Your task to perform on an android device: Toggle the flashlight Image 0: 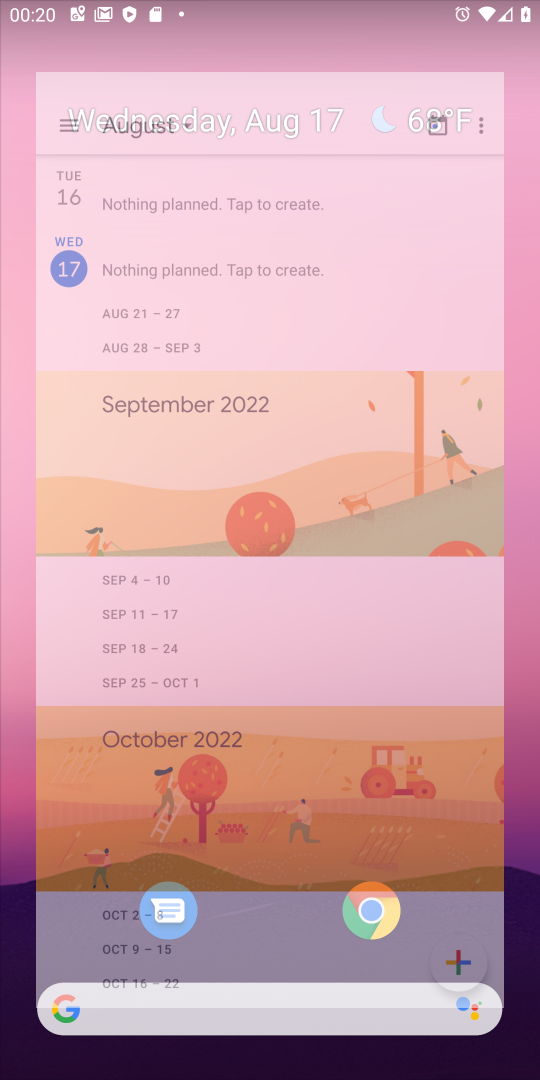
Step 0: press home button
Your task to perform on an android device: Toggle the flashlight Image 1: 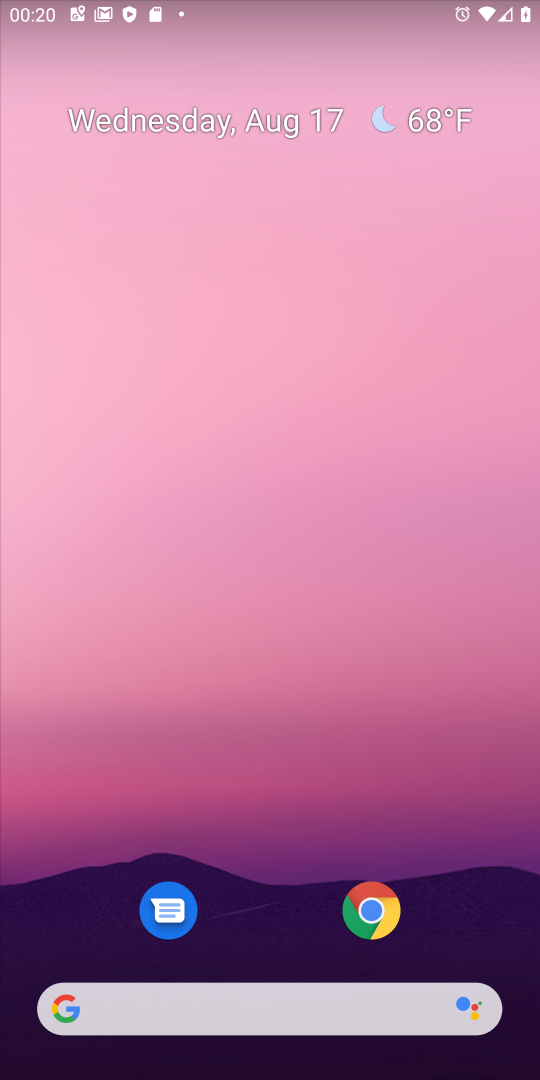
Step 1: drag from (291, 879) to (340, 128)
Your task to perform on an android device: Toggle the flashlight Image 2: 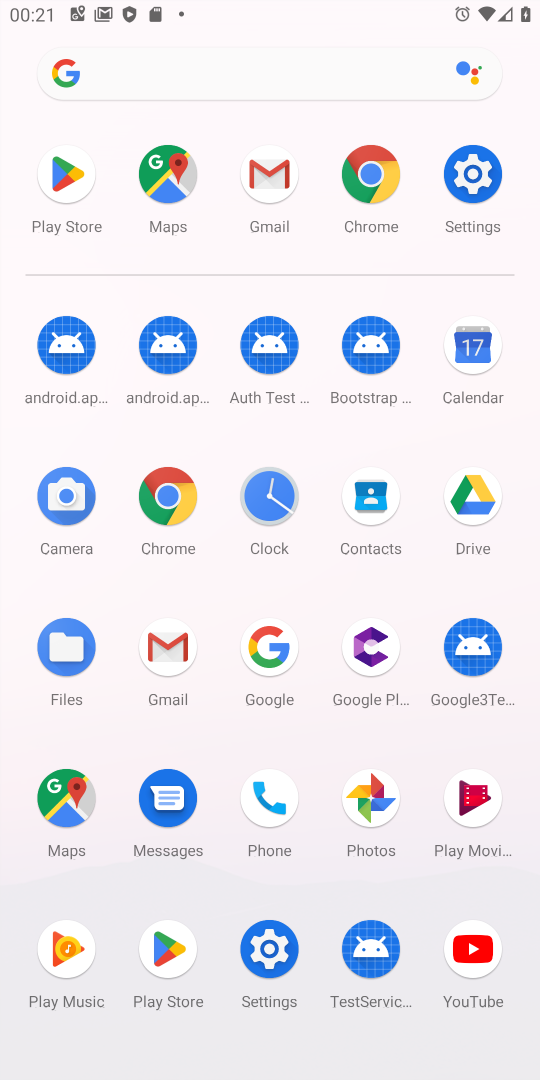
Step 2: click (265, 942)
Your task to perform on an android device: Toggle the flashlight Image 3: 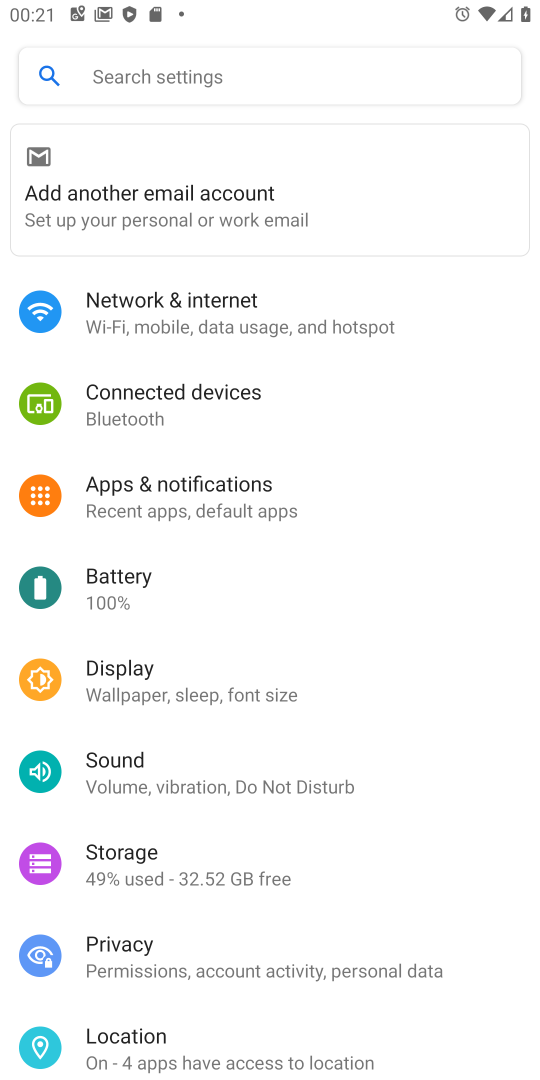
Step 3: click (231, 690)
Your task to perform on an android device: Toggle the flashlight Image 4: 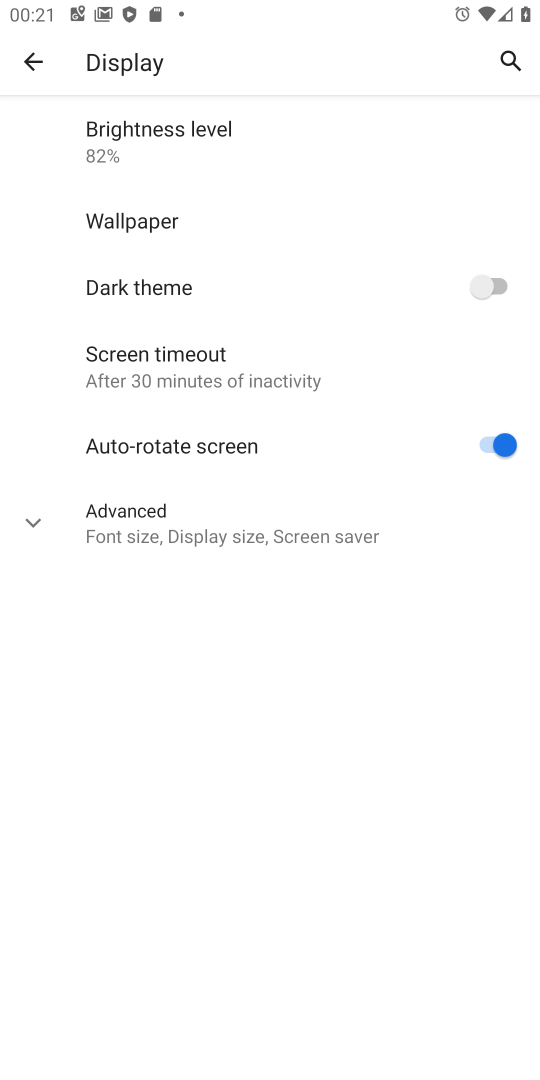
Step 4: task complete